Your task to perform on an android device: Search for "acer nitro" on newegg, select the first entry, and add it to the cart. Image 0: 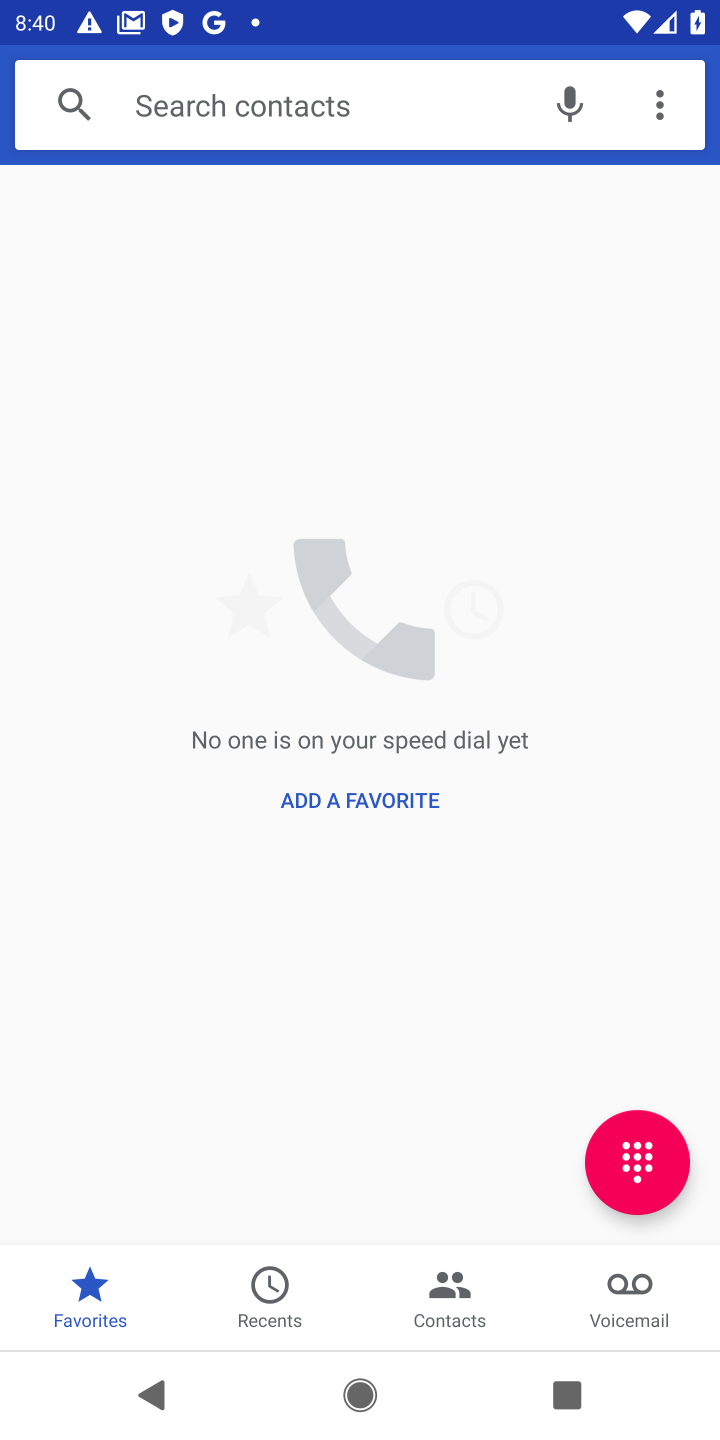
Step 0: press home button
Your task to perform on an android device: Search for "acer nitro" on newegg, select the first entry, and add it to the cart. Image 1: 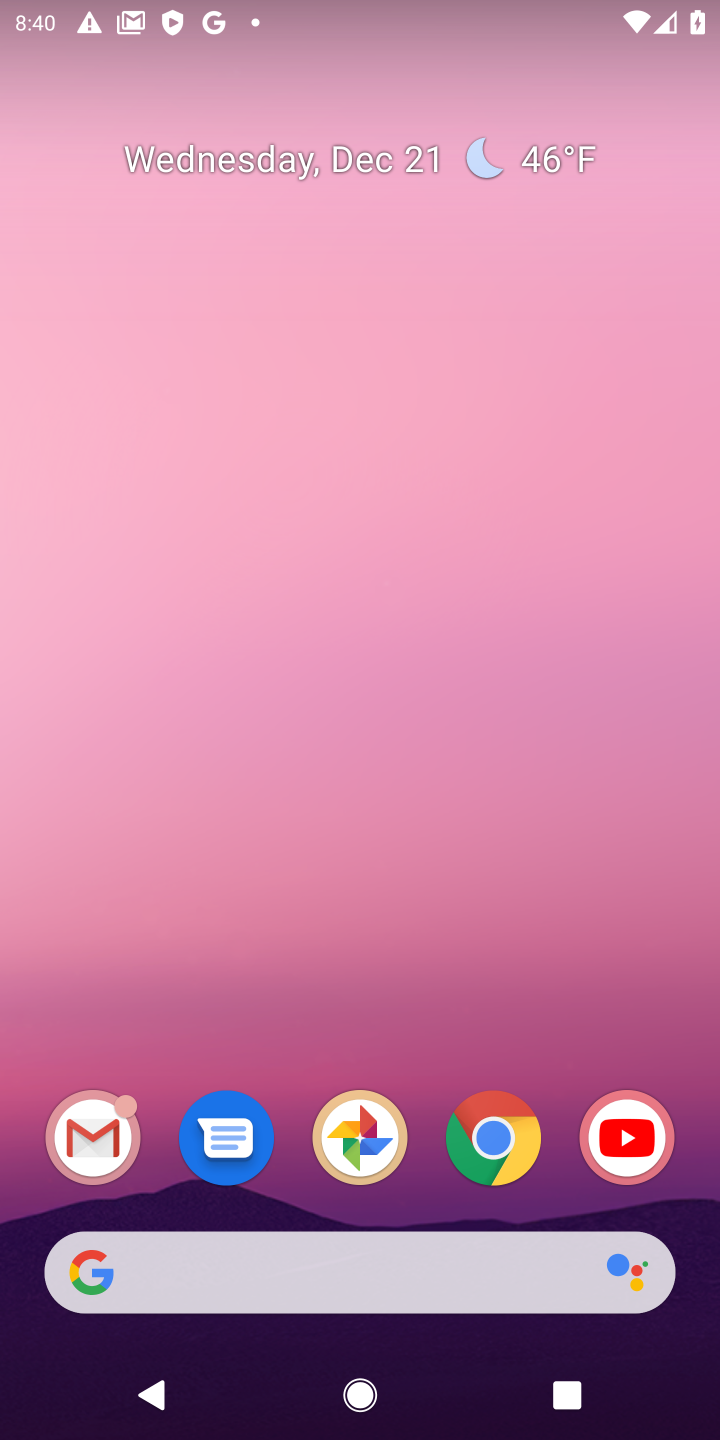
Step 1: click (502, 1133)
Your task to perform on an android device: Search for "acer nitro" on newegg, select the first entry, and add it to the cart. Image 2: 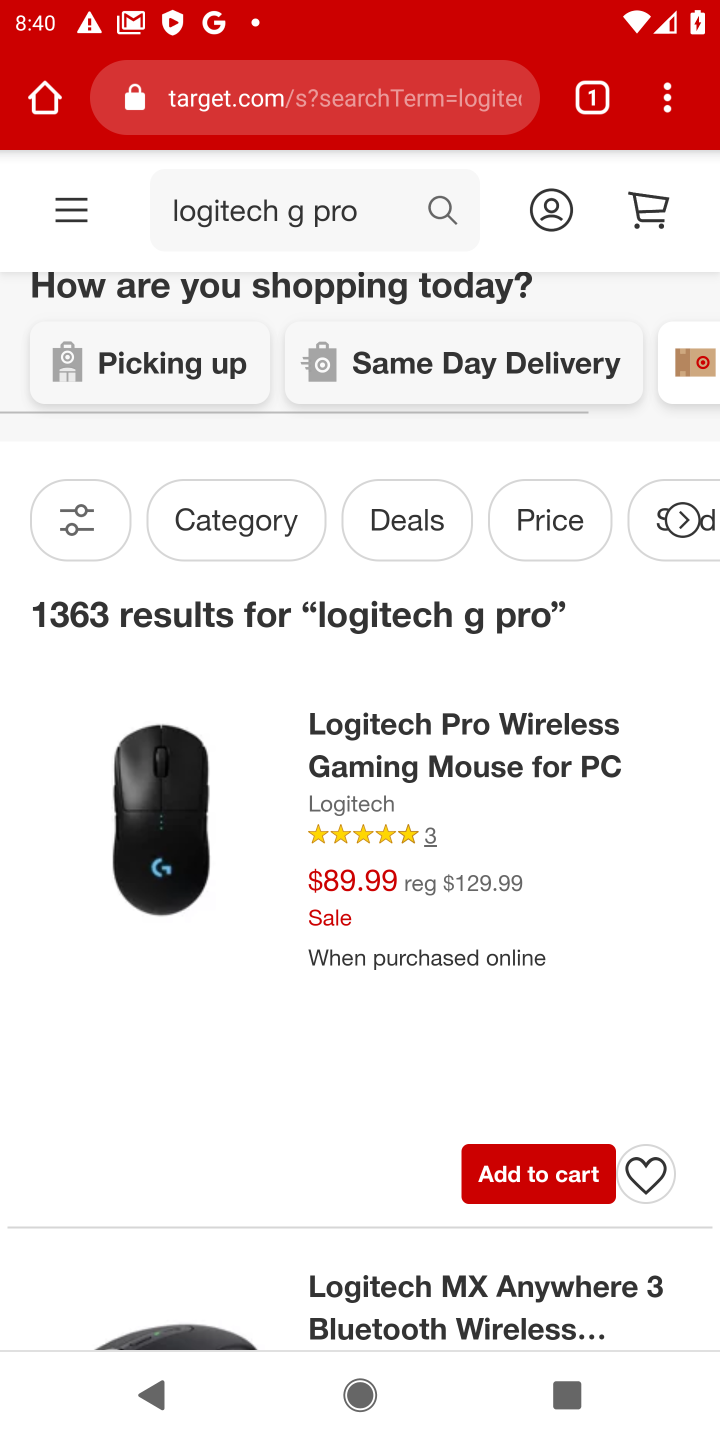
Step 2: click (268, 104)
Your task to perform on an android device: Search for "acer nitro" on newegg, select the first entry, and add it to the cart. Image 3: 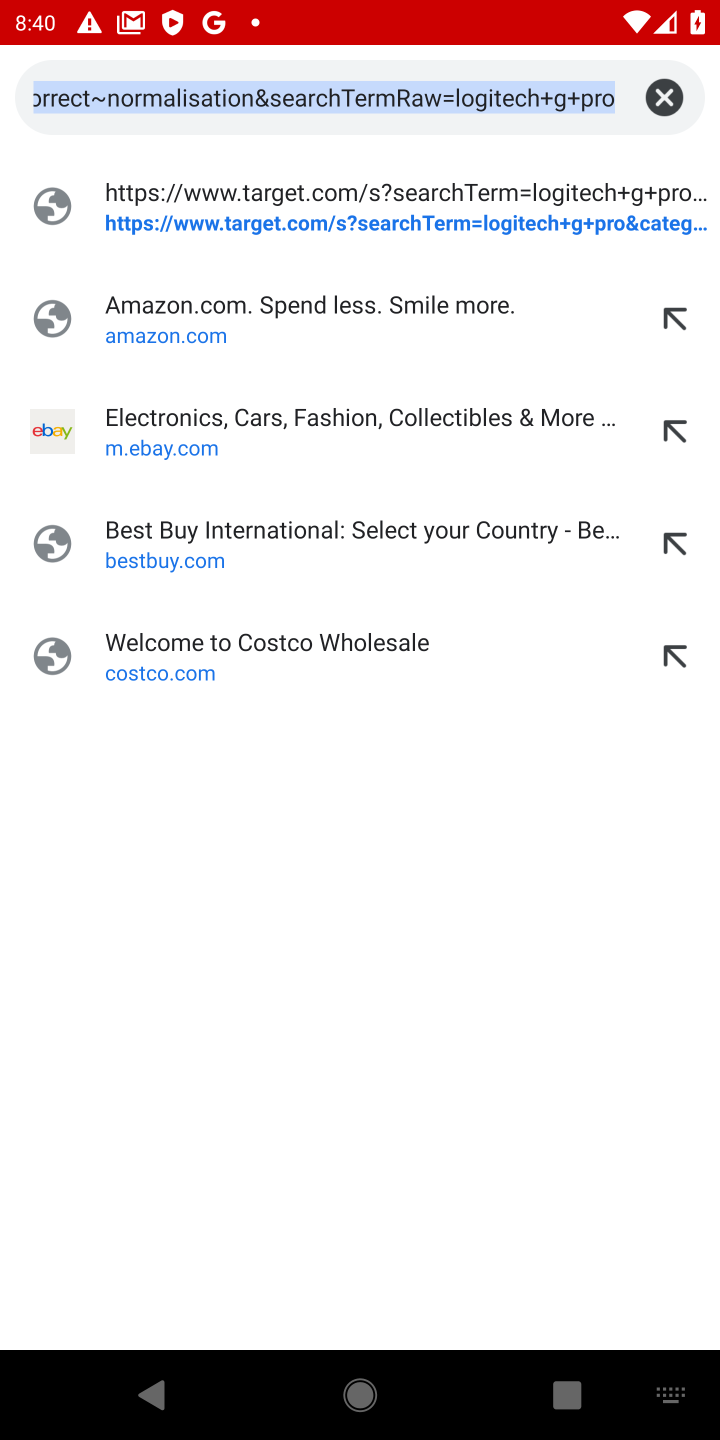
Step 3: type "newegg.com"
Your task to perform on an android device: Search for "acer nitro" on newegg, select the first entry, and add it to the cart. Image 4: 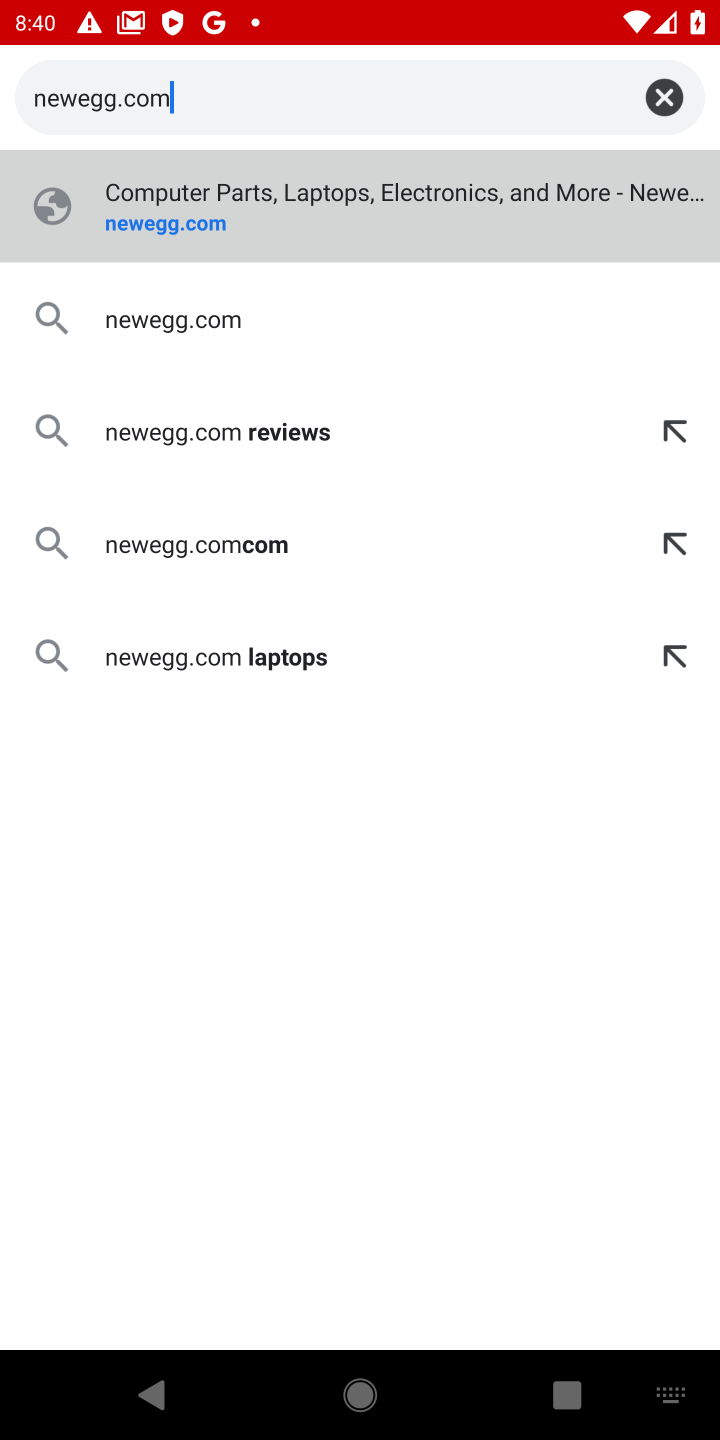
Step 4: click (157, 231)
Your task to perform on an android device: Search for "acer nitro" on newegg, select the first entry, and add it to the cart. Image 5: 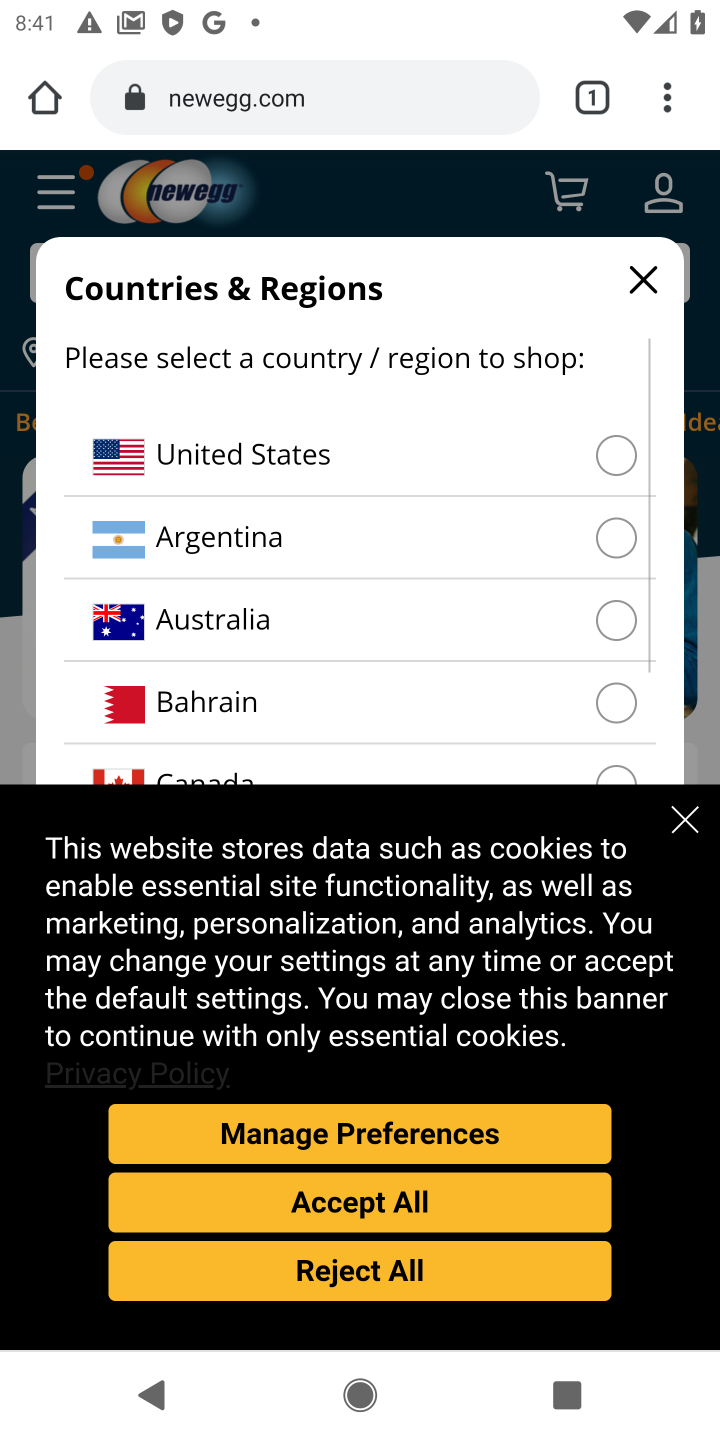
Step 5: click (691, 834)
Your task to perform on an android device: Search for "acer nitro" on newegg, select the first entry, and add it to the cart. Image 6: 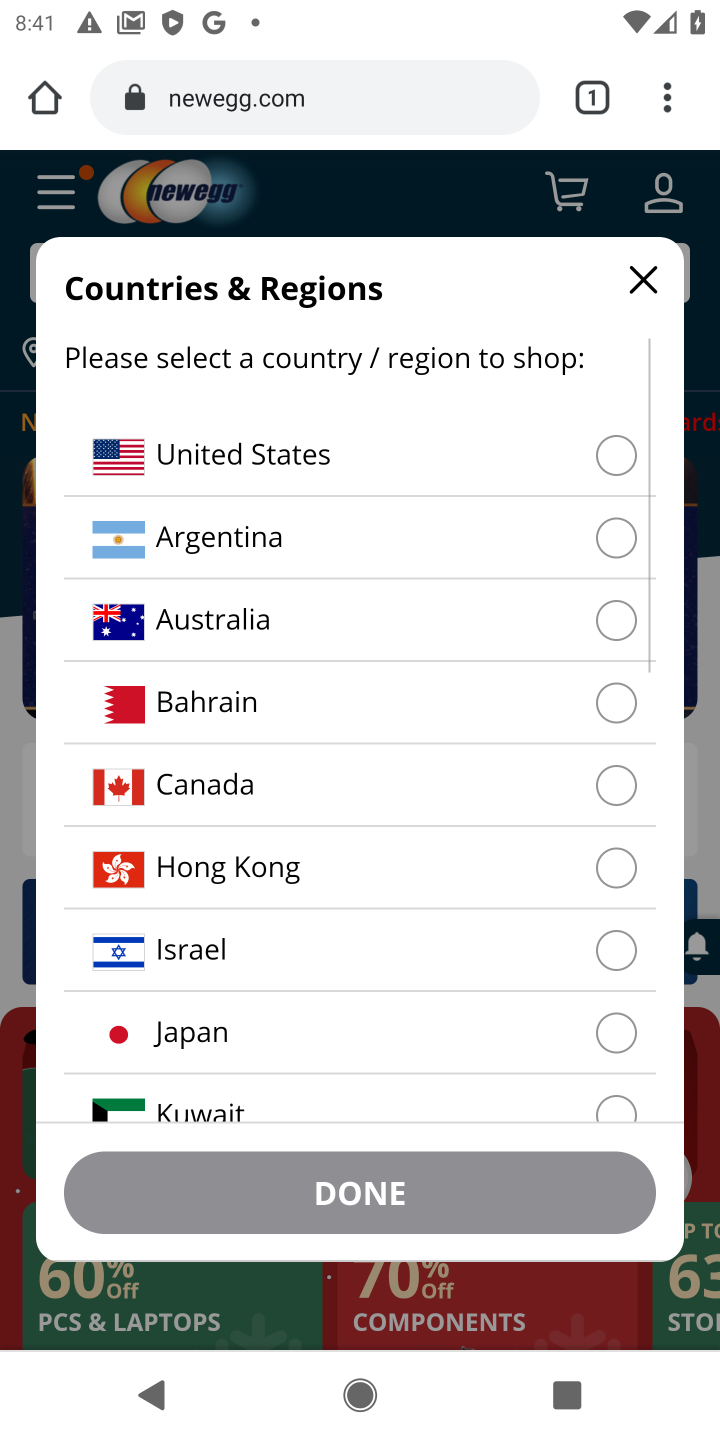
Step 6: click (251, 459)
Your task to perform on an android device: Search for "acer nitro" on newegg, select the first entry, and add it to the cart. Image 7: 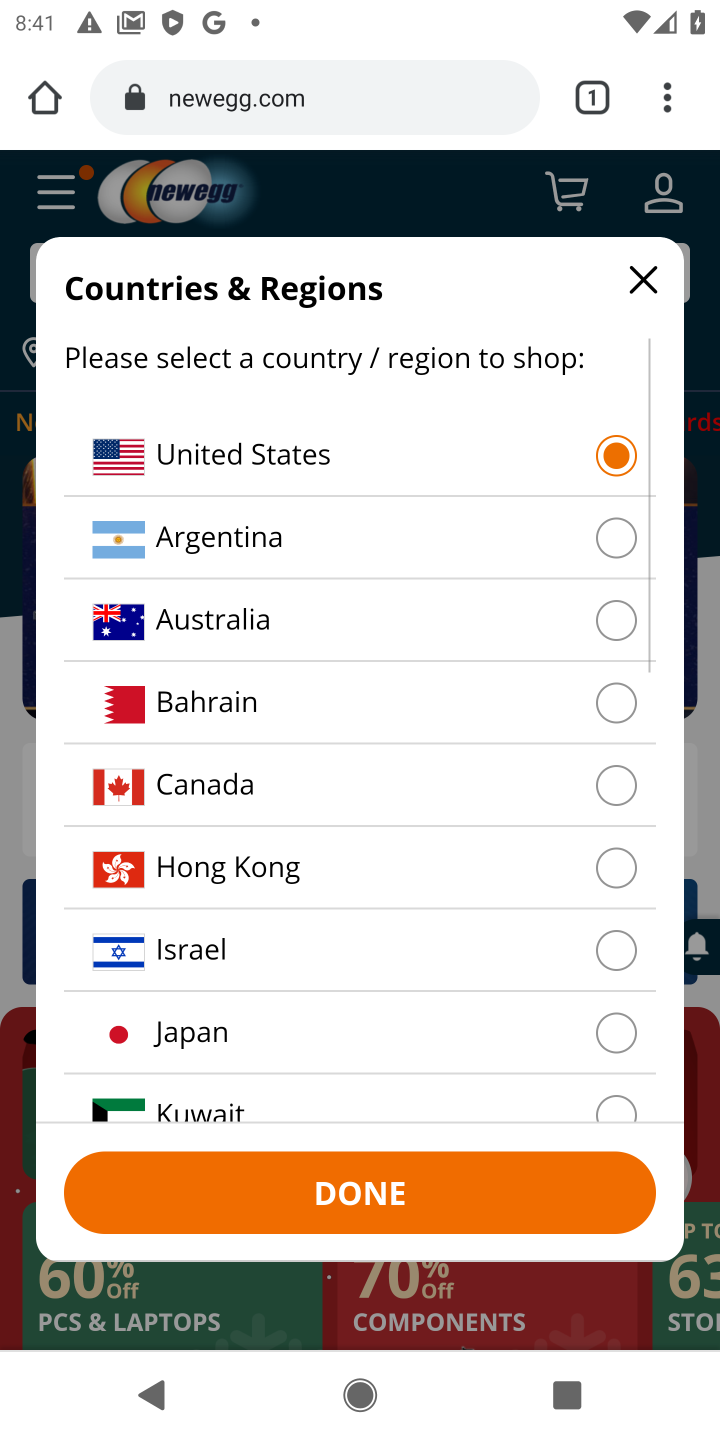
Step 7: click (320, 1191)
Your task to perform on an android device: Search for "acer nitro" on newegg, select the first entry, and add it to the cart. Image 8: 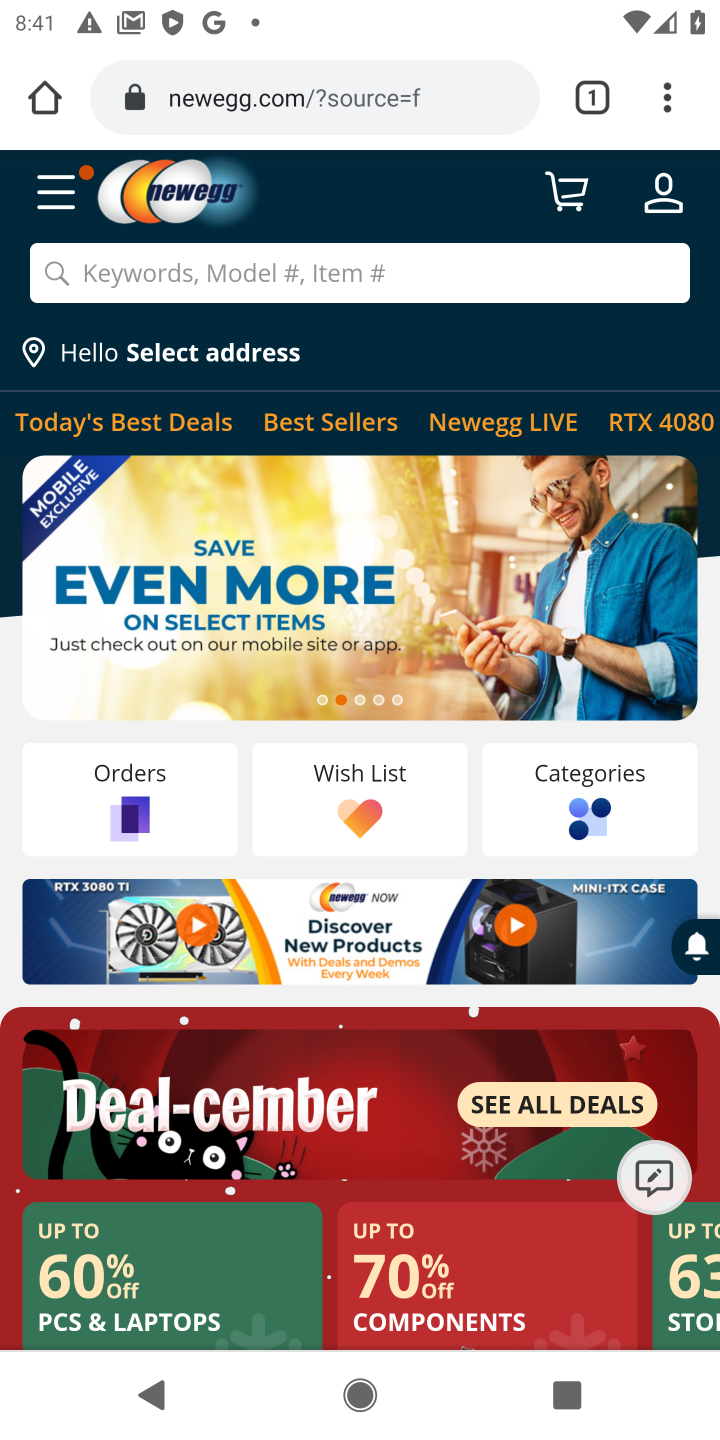
Step 8: click (191, 263)
Your task to perform on an android device: Search for "acer nitro" on newegg, select the first entry, and add it to the cart. Image 9: 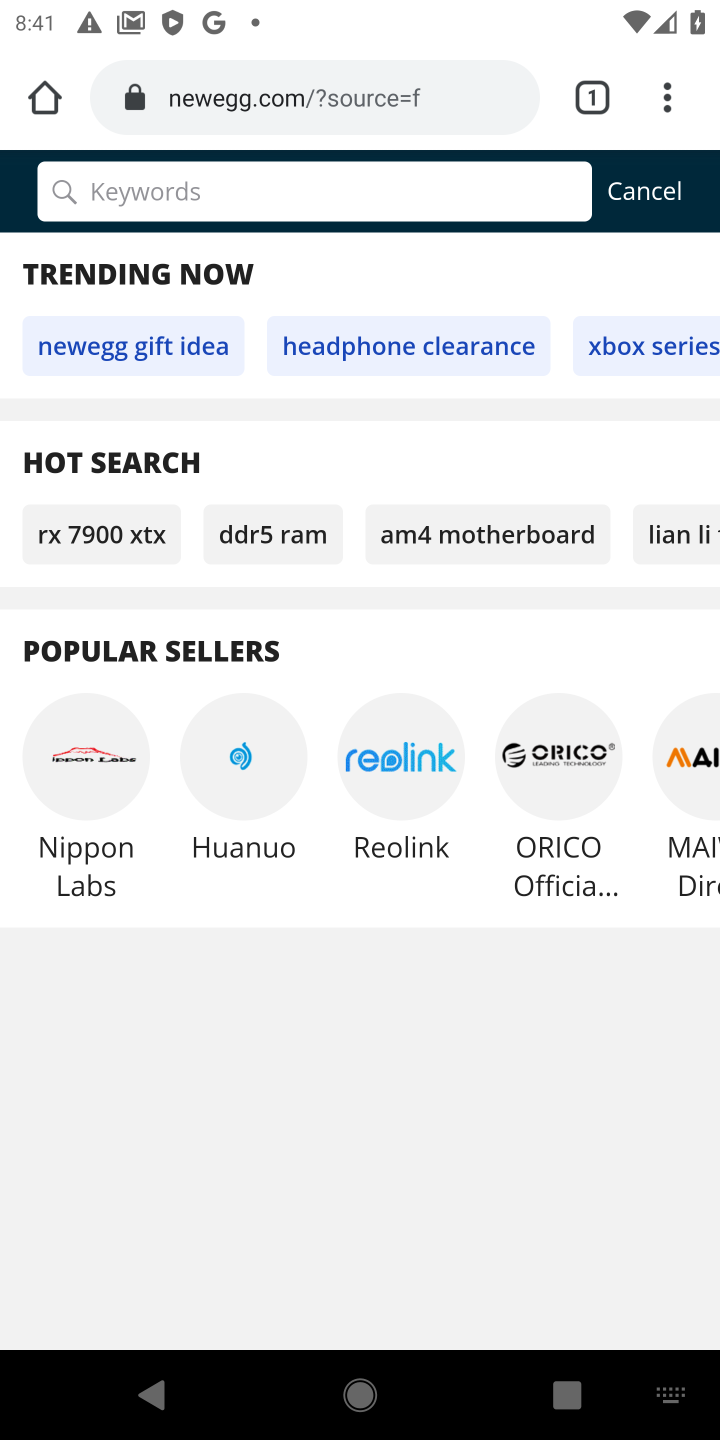
Step 9: type "acer nitro"
Your task to perform on an android device: Search for "acer nitro" on newegg, select the first entry, and add it to the cart. Image 10: 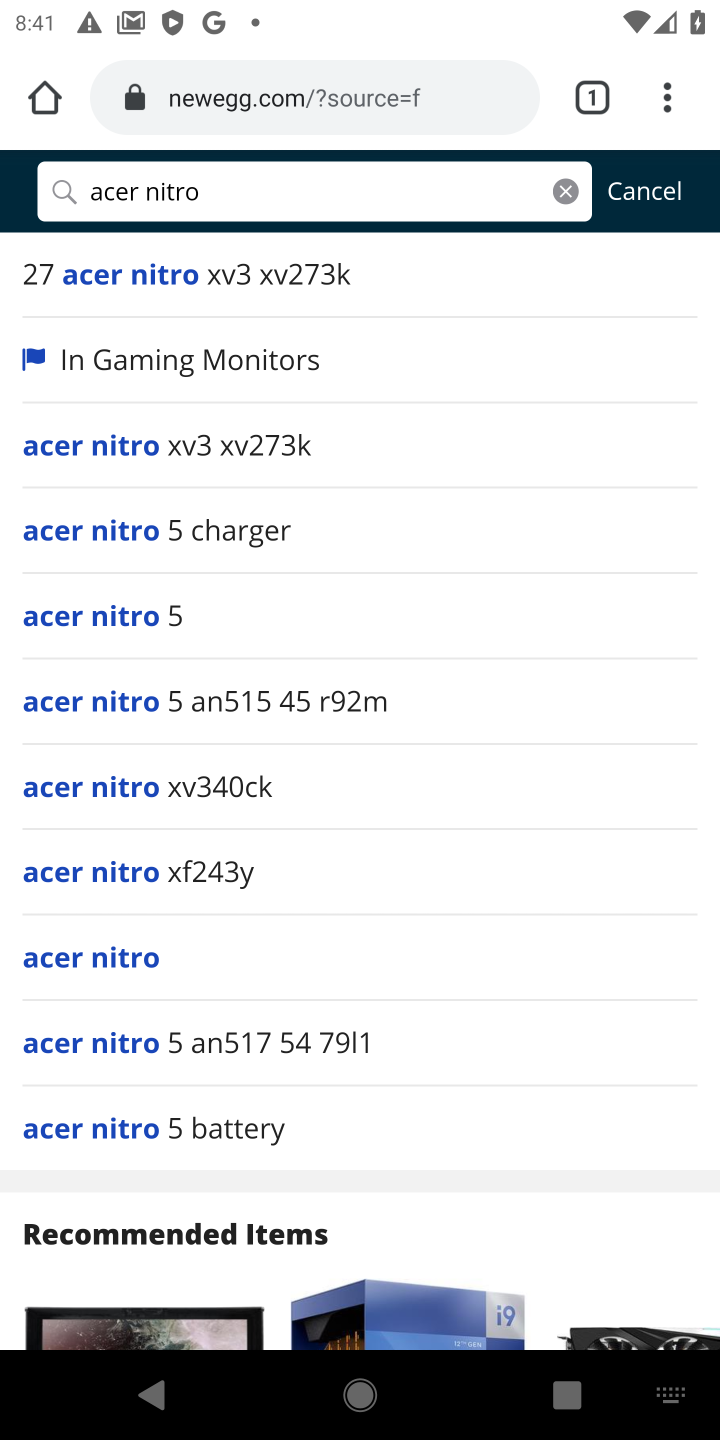
Step 10: click (108, 957)
Your task to perform on an android device: Search for "acer nitro" on newegg, select the first entry, and add it to the cart. Image 11: 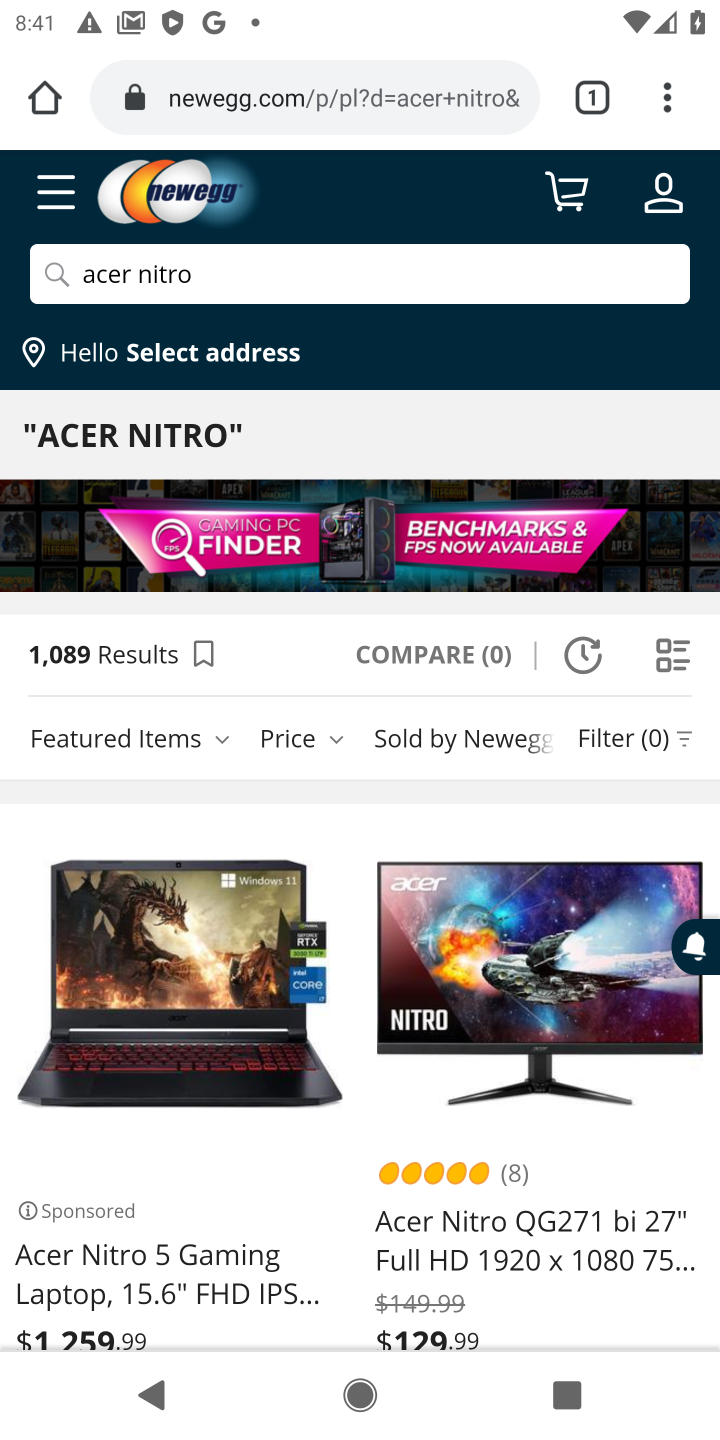
Step 11: drag from (225, 970) to (226, 741)
Your task to perform on an android device: Search for "acer nitro" on newegg, select the first entry, and add it to the cart. Image 12: 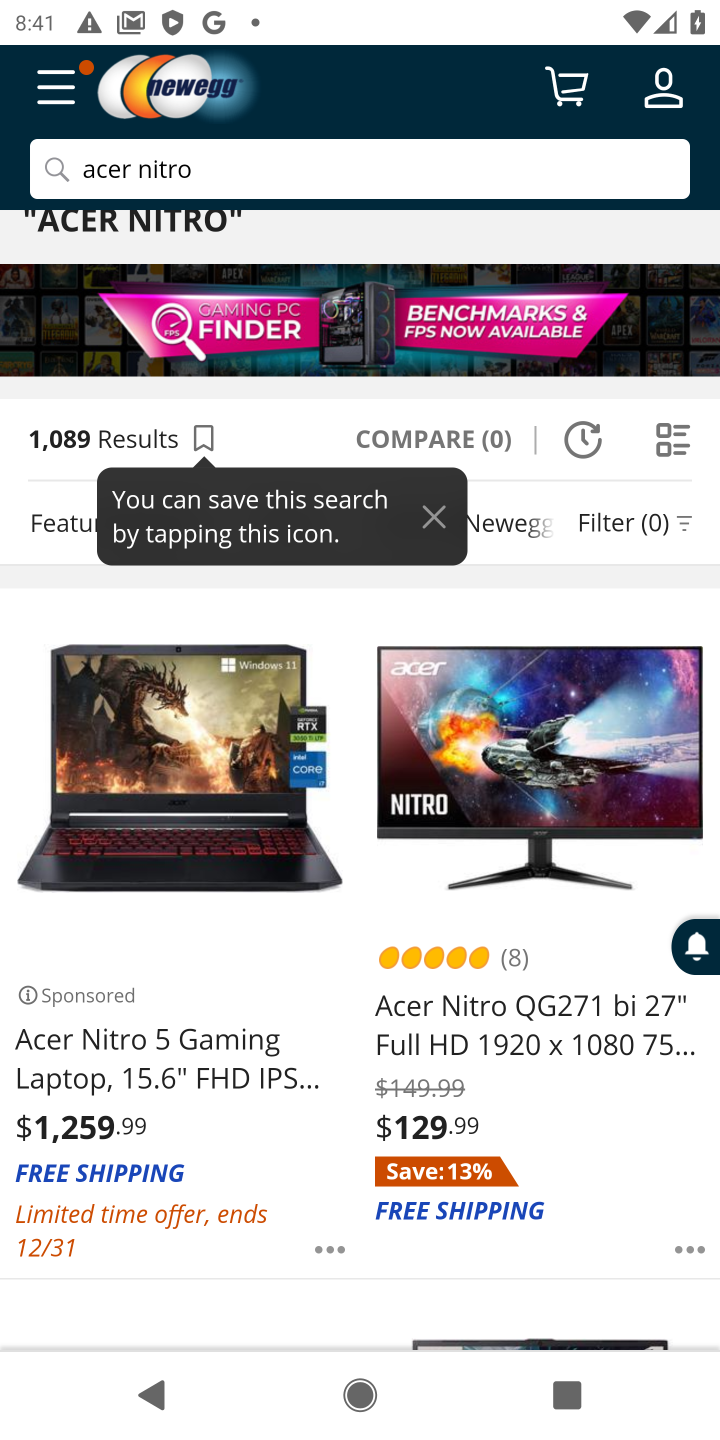
Step 12: click (144, 1055)
Your task to perform on an android device: Search for "acer nitro" on newegg, select the first entry, and add it to the cart. Image 13: 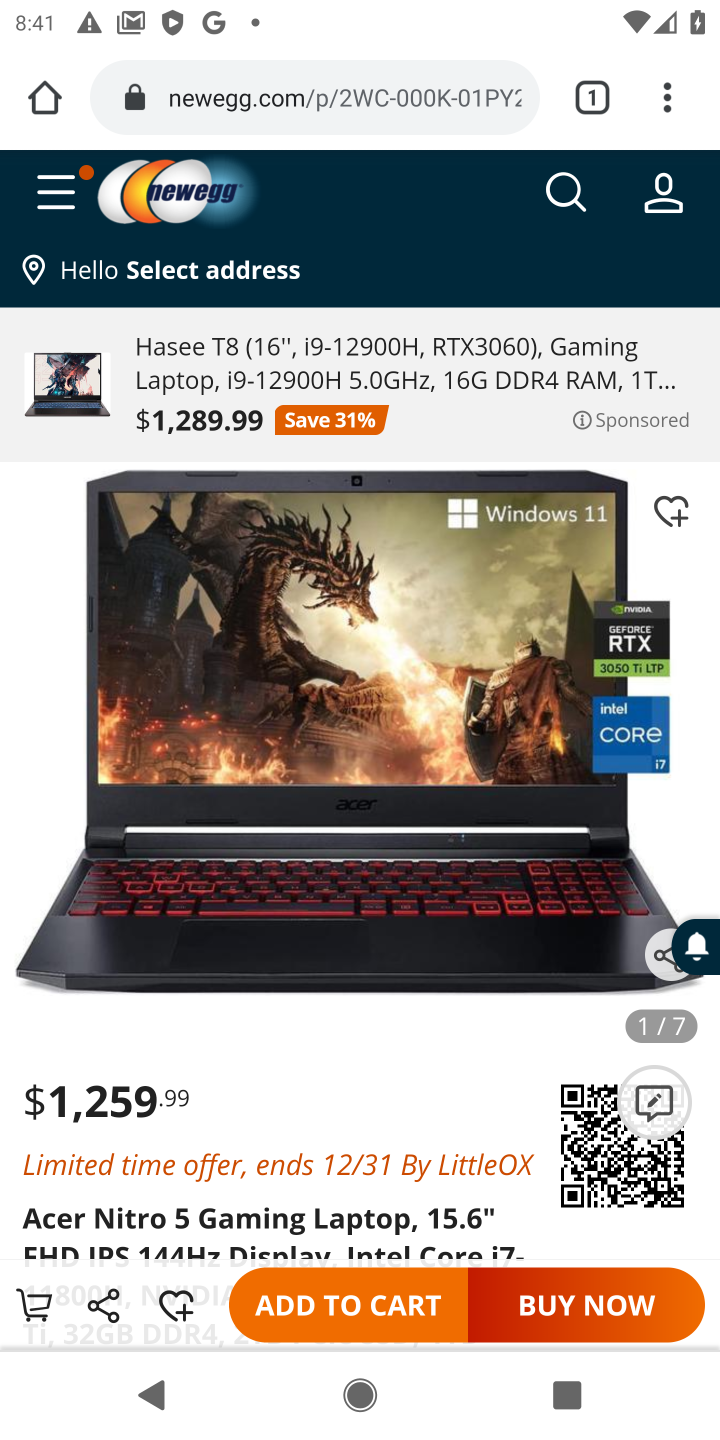
Step 13: click (331, 1313)
Your task to perform on an android device: Search for "acer nitro" on newegg, select the first entry, and add it to the cart. Image 14: 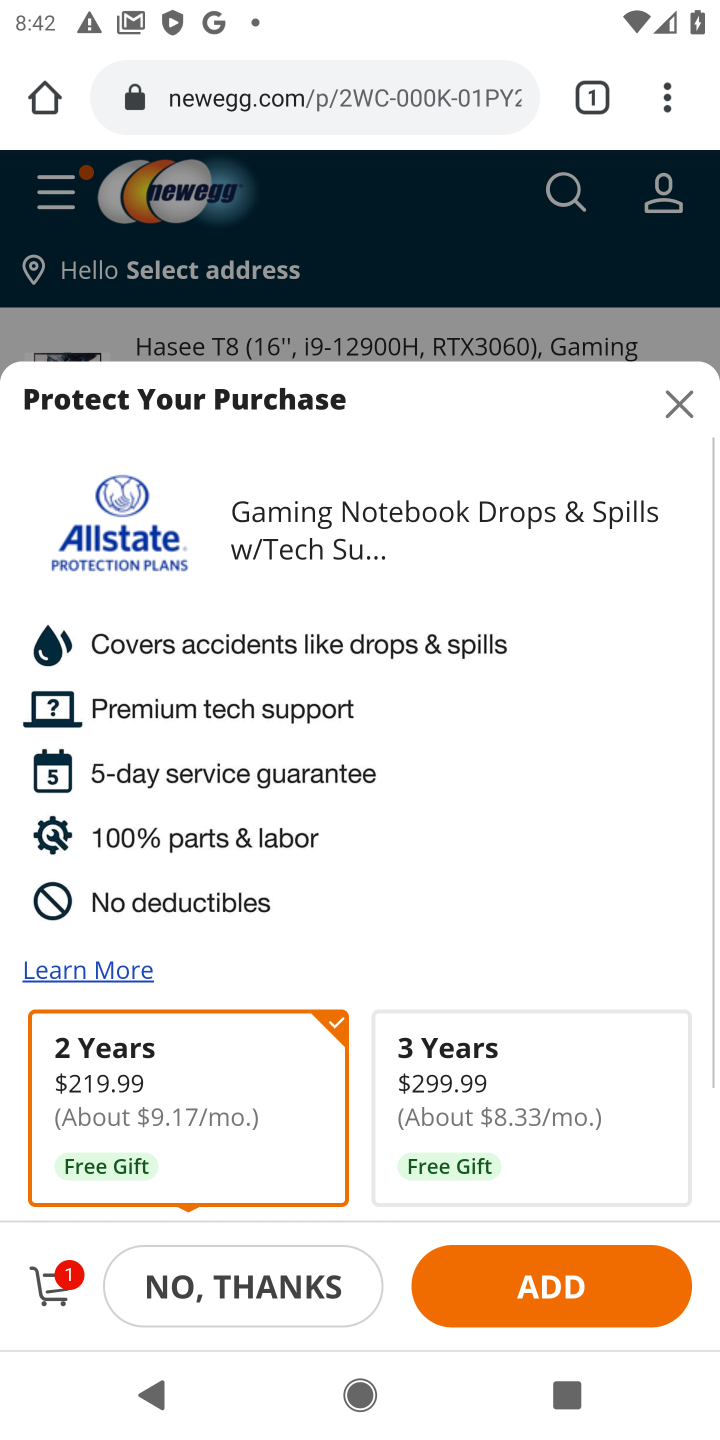
Step 14: task complete